Your task to perform on an android device: Open the web browser Image 0: 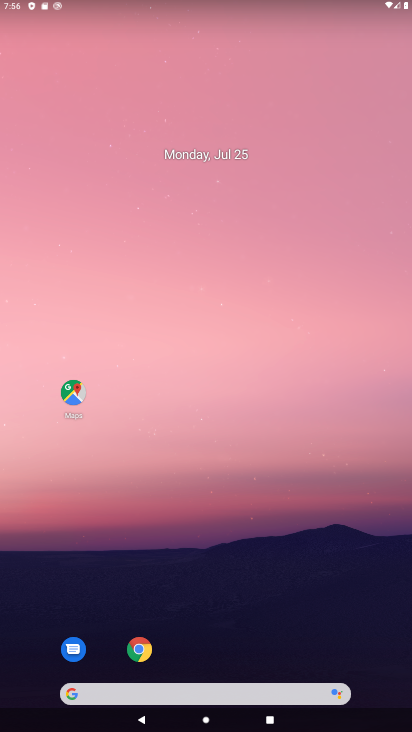
Step 0: click (138, 652)
Your task to perform on an android device: Open the web browser Image 1: 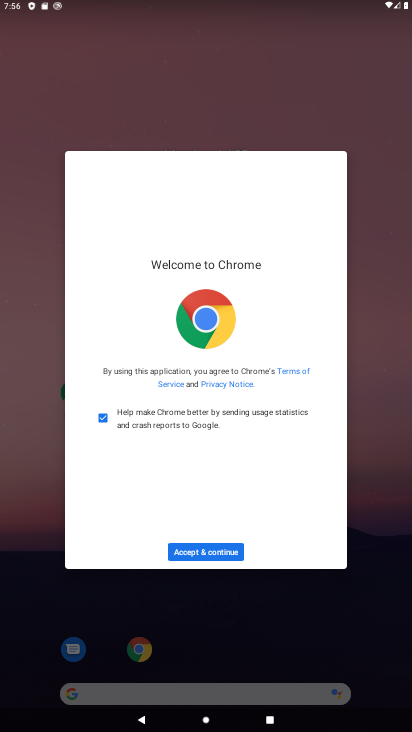
Step 1: click (206, 555)
Your task to perform on an android device: Open the web browser Image 2: 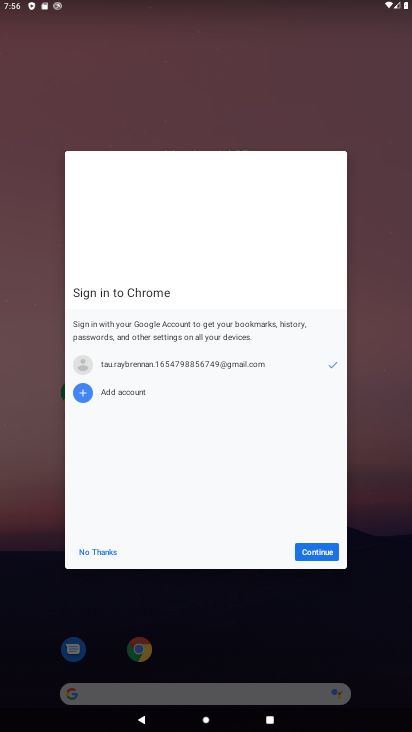
Step 2: click (317, 559)
Your task to perform on an android device: Open the web browser Image 3: 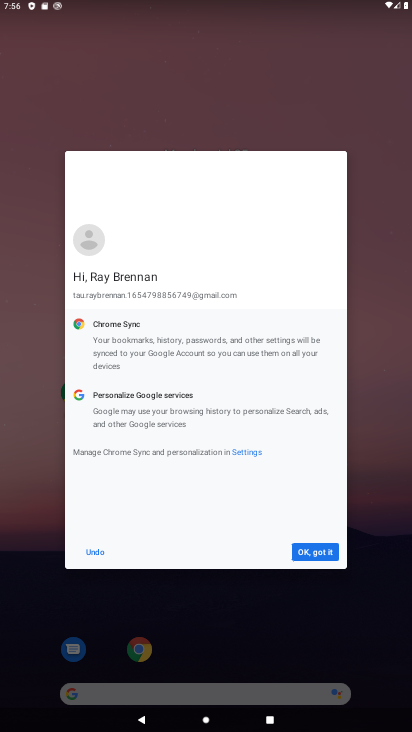
Step 3: click (317, 559)
Your task to perform on an android device: Open the web browser Image 4: 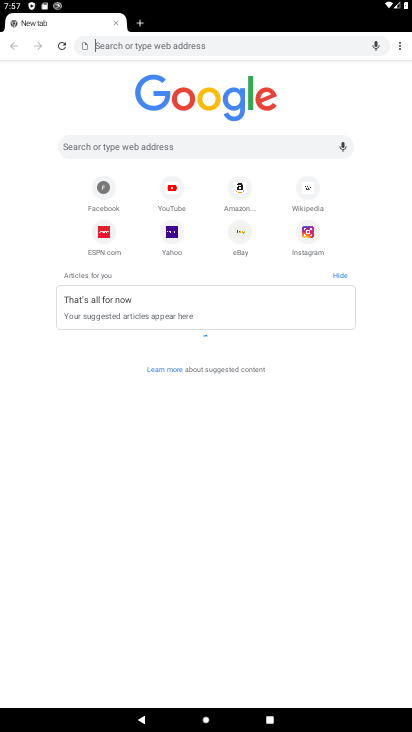
Step 4: task complete